Your task to perform on an android device: turn on airplane mode Image 0: 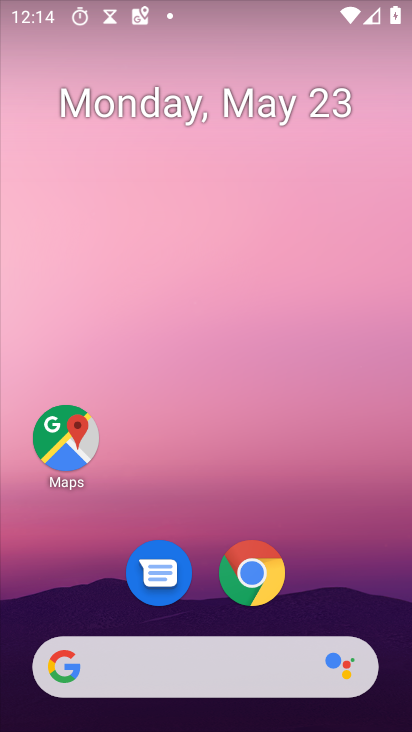
Step 0: press home button
Your task to perform on an android device: turn on airplane mode Image 1: 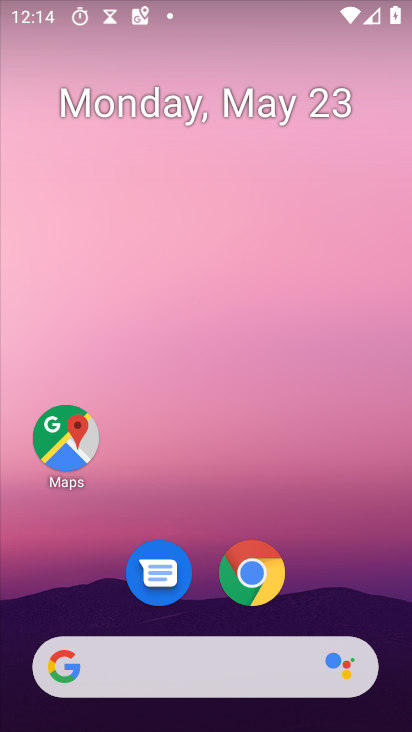
Step 1: drag from (352, 198) to (371, 137)
Your task to perform on an android device: turn on airplane mode Image 2: 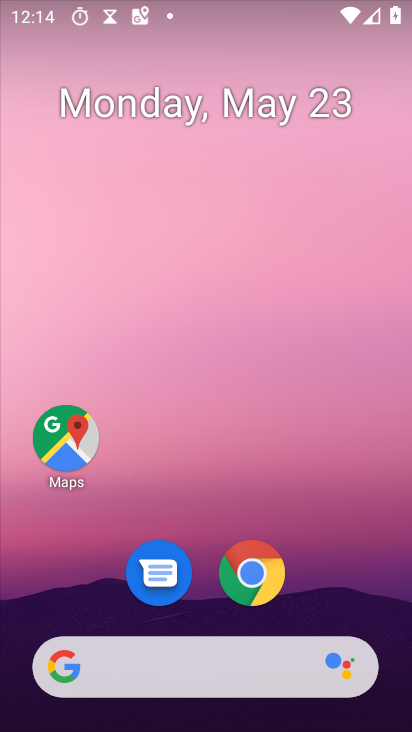
Step 2: drag from (128, 663) to (287, 102)
Your task to perform on an android device: turn on airplane mode Image 3: 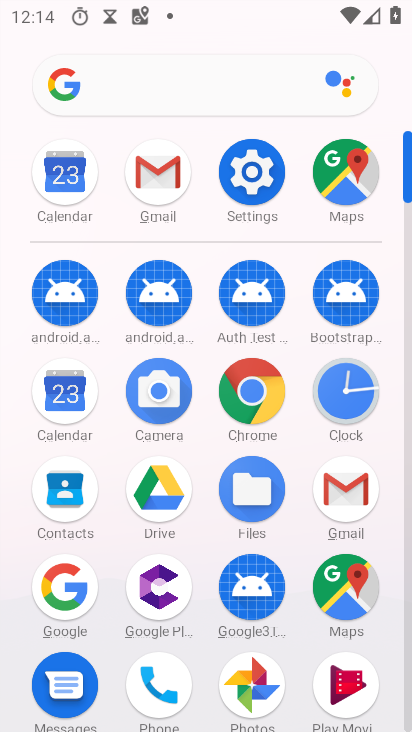
Step 3: click (251, 183)
Your task to perform on an android device: turn on airplane mode Image 4: 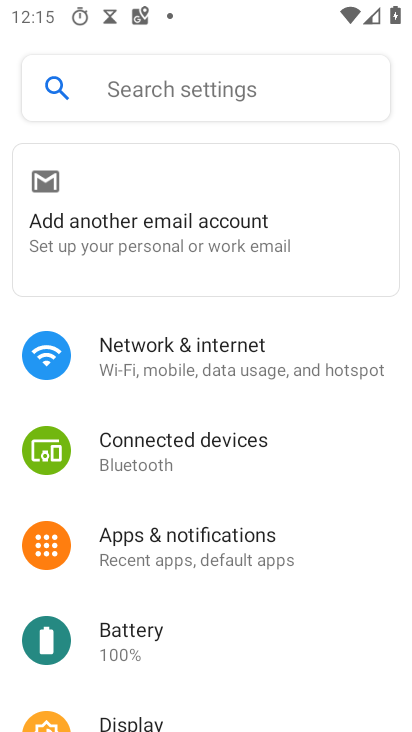
Step 4: drag from (229, 630) to (354, 145)
Your task to perform on an android device: turn on airplane mode Image 5: 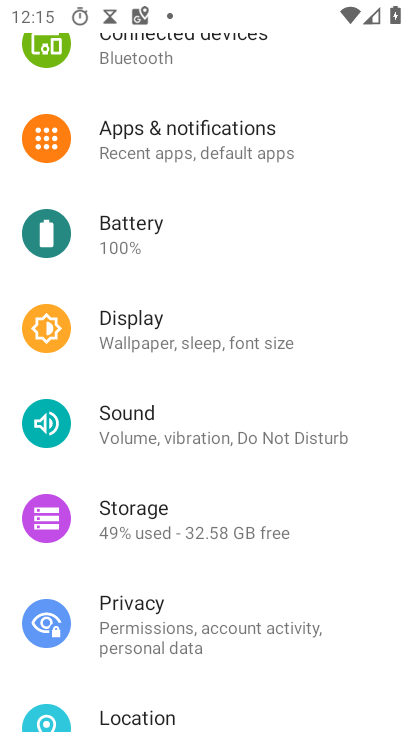
Step 5: drag from (310, 64) to (236, 587)
Your task to perform on an android device: turn on airplane mode Image 6: 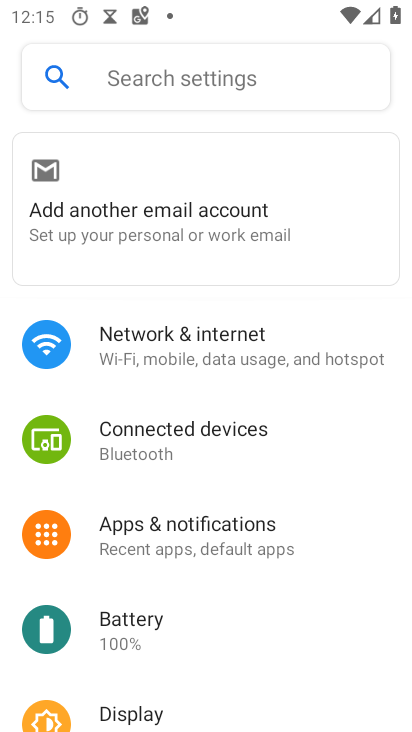
Step 6: click (239, 338)
Your task to perform on an android device: turn on airplane mode Image 7: 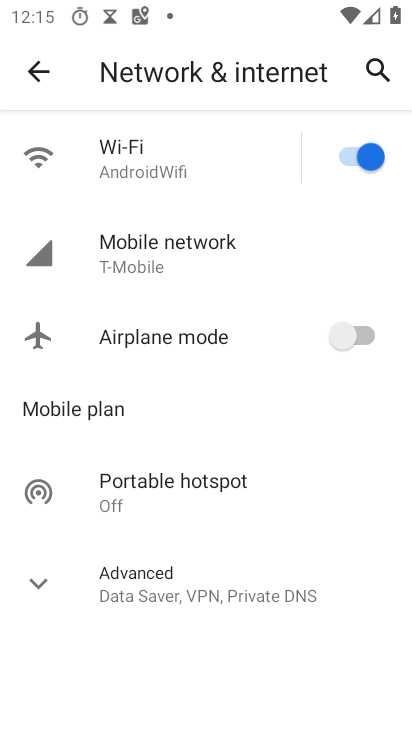
Step 7: click (368, 332)
Your task to perform on an android device: turn on airplane mode Image 8: 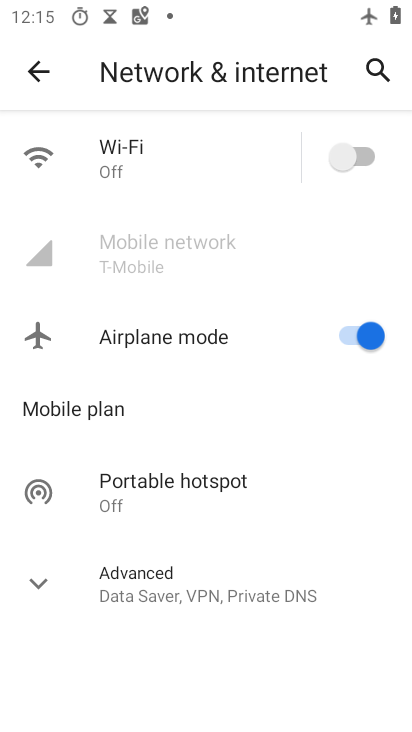
Step 8: task complete